Your task to perform on an android device: What's on my calendar tomorrow? Image 0: 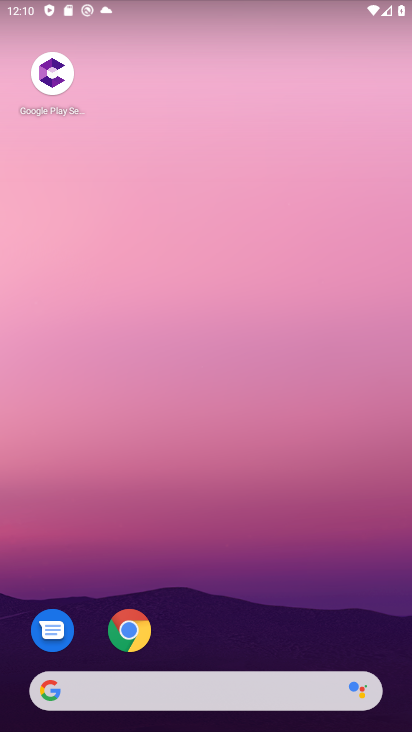
Step 0: drag from (216, 673) to (218, 206)
Your task to perform on an android device: What's on my calendar tomorrow? Image 1: 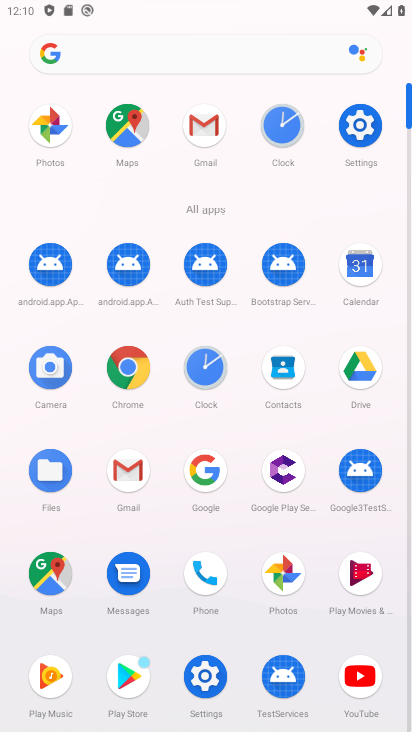
Step 1: click (358, 271)
Your task to perform on an android device: What's on my calendar tomorrow? Image 2: 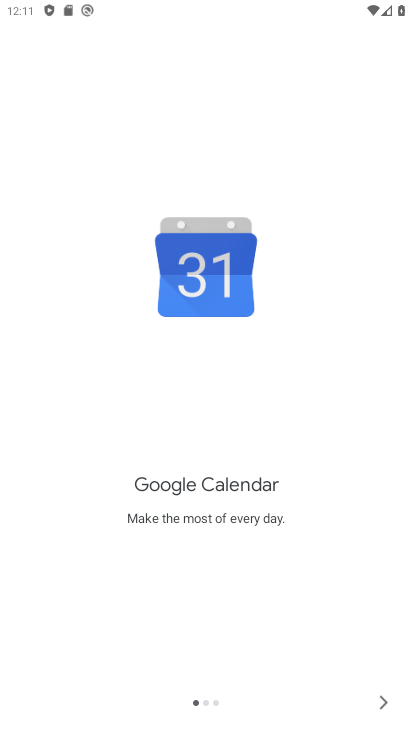
Step 2: click (371, 701)
Your task to perform on an android device: What's on my calendar tomorrow? Image 3: 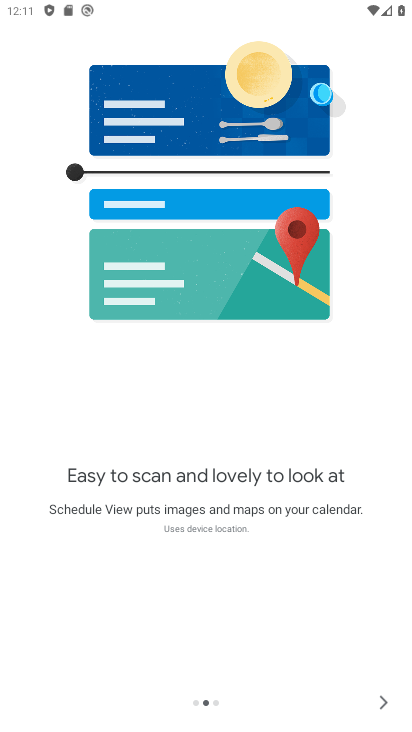
Step 3: click (380, 707)
Your task to perform on an android device: What's on my calendar tomorrow? Image 4: 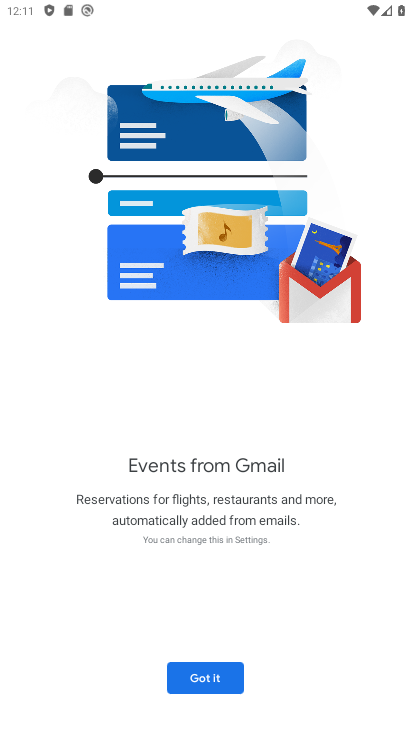
Step 4: click (227, 682)
Your task to perform on an android device: What's on my calendar tomorrow? Image 5: 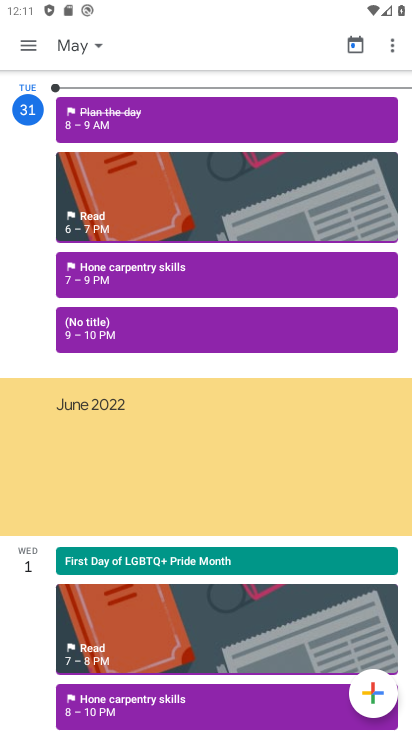
Step 5: click (72, 44)
Your task to perform on an android device: What's on my calendar tomorrow? Image 6: 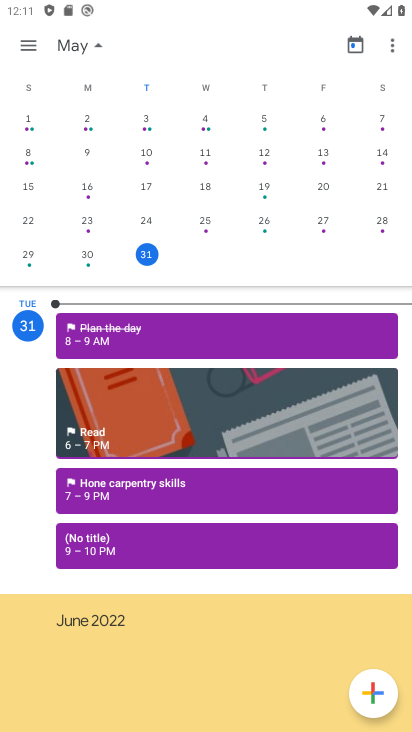
Step 6: drag from (369, 254) to (12, 204)
Your task to perform on an android device: What's on my calendar tomorrow? Image 7: 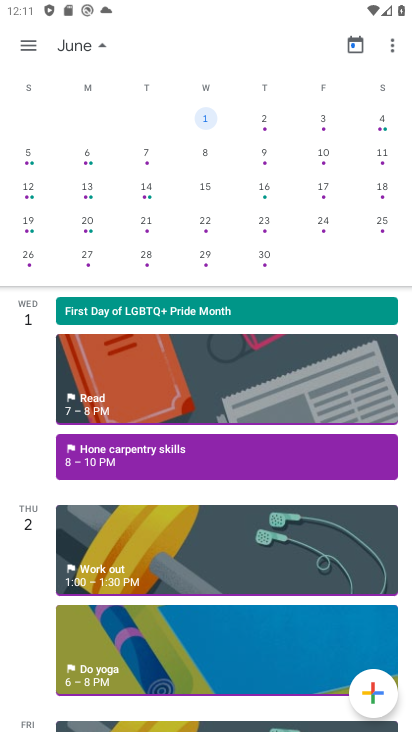
Step 7: click (209, 123)
Your task to perform on an android device: What's on my calendar tomorrow? Image 8: 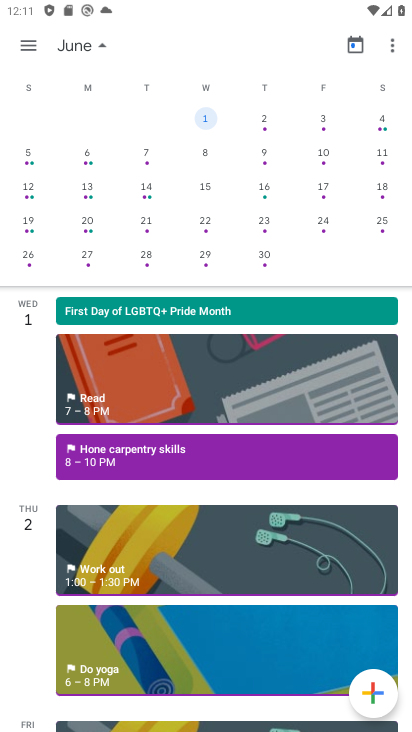
Step 8: click (207, 117)
Your task to perform on an android device: What's on my calendar tomorrow? Image 9: 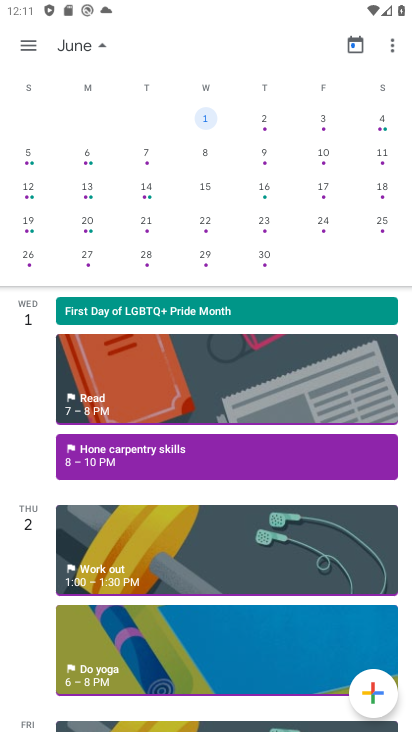
Step 9: task complete